Your task to perform on an android device: delete a single message in the gmail app Image 0: 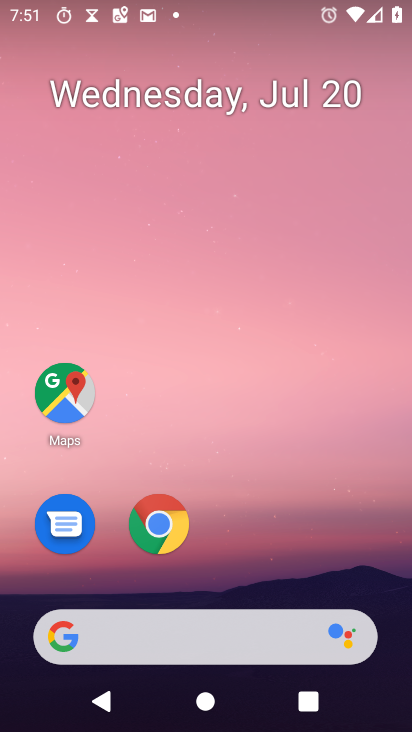
Step 0: drag from (194, 644) to (330, 92)
Your task to perform on an android device: delete a single message in the gmail app Image 1: 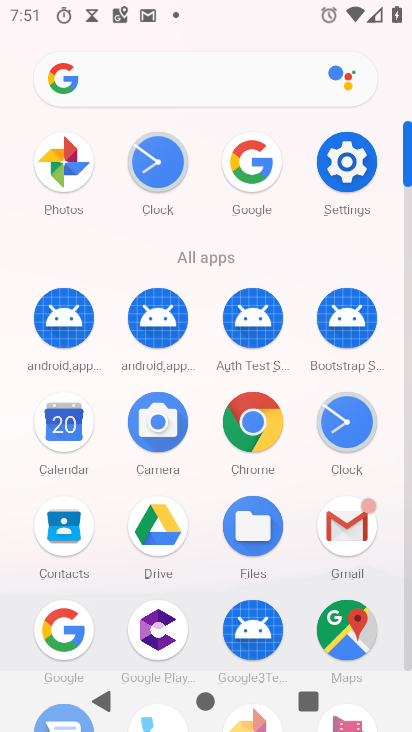
Step 1: click (354, 544)
Your task to perform on an android device: delete a single message in the gmail app Image 2: 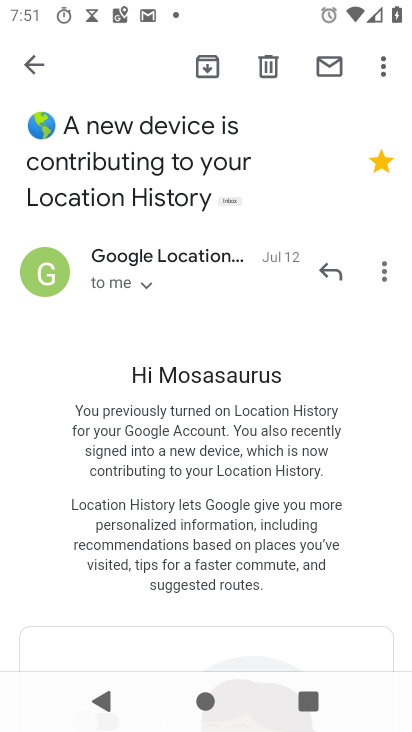
Step 2: click (37, 60)
Your task to perform on an android device: delete a single message in the gmail app Image 3: 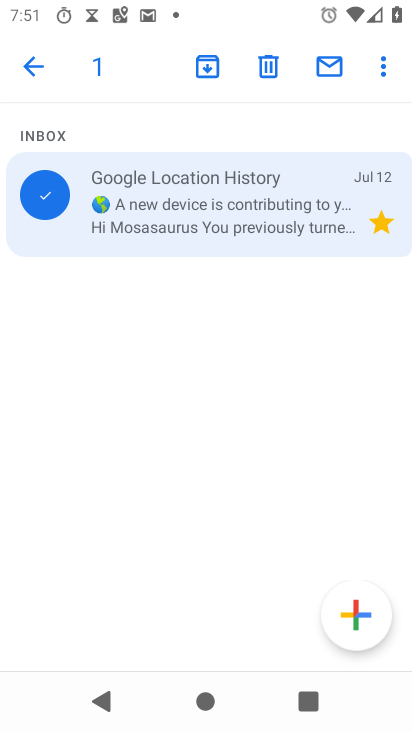
Step 3: click (262, 70)
Your task to perform on an android device: delete a single message in the gmail app Image 4: 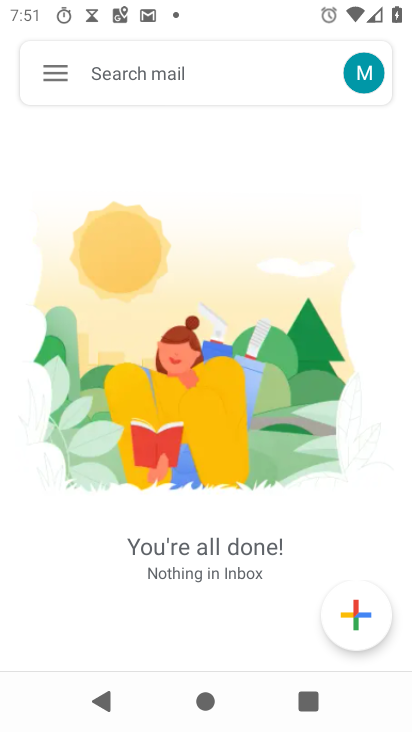
Step 4: task complete